Your task to perform on an android device: check out phone information Image 0: 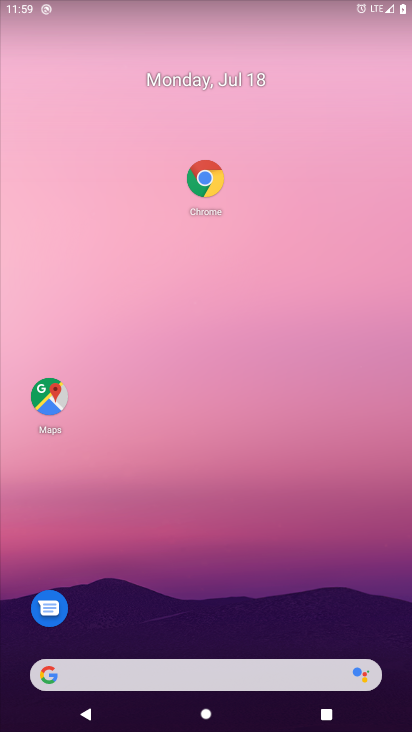
Step 0: drag from (37, 691) to (313, 26)
Your task to perform on an android device: check out phone information Image 1: 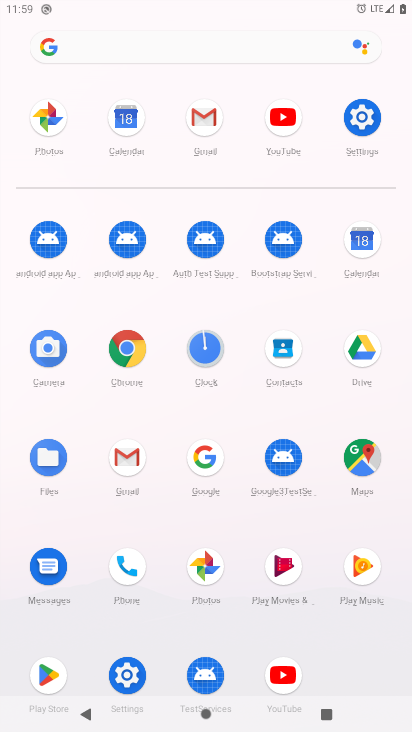
Step 1: click (282, 353)
Your task to perform on an android device: check out phone information Image 2: 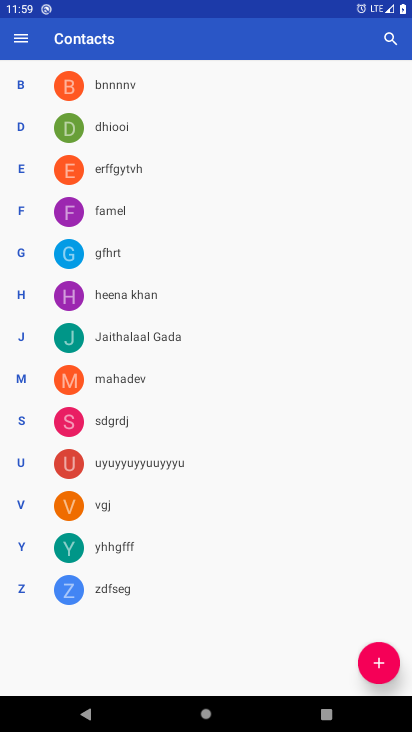
Step 2: task complete